Your task to perform on an android device: add a contact Image 0: 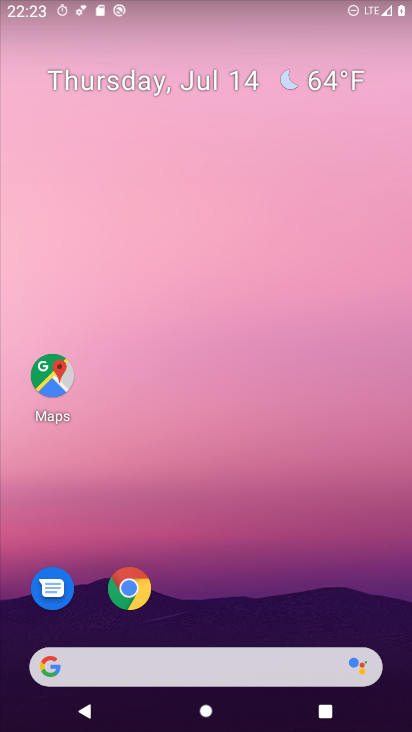
Step 0: drag from (323, 585) to (332, 155)
Your task to perform on an android device: add a contact Image 1: 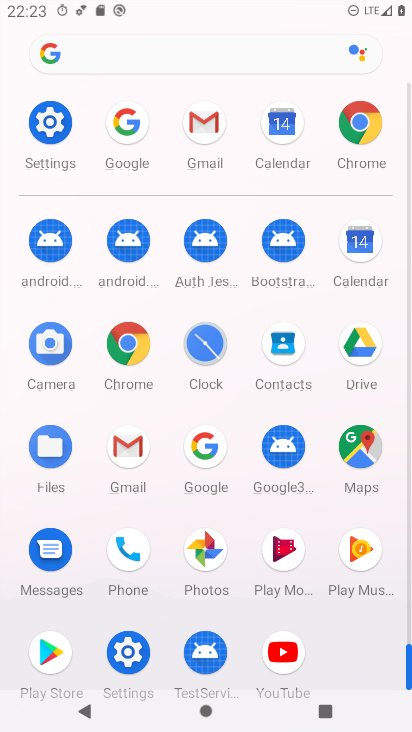
Step 1: click (286, 348)
Your task to perform on an android device: add a contact Image 2: 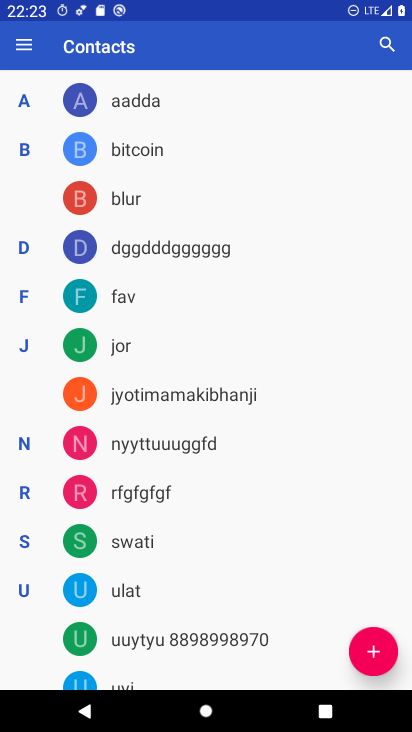
Step 2: click (384, 659)
Your task to perform on an android device: add a contact Image 3: 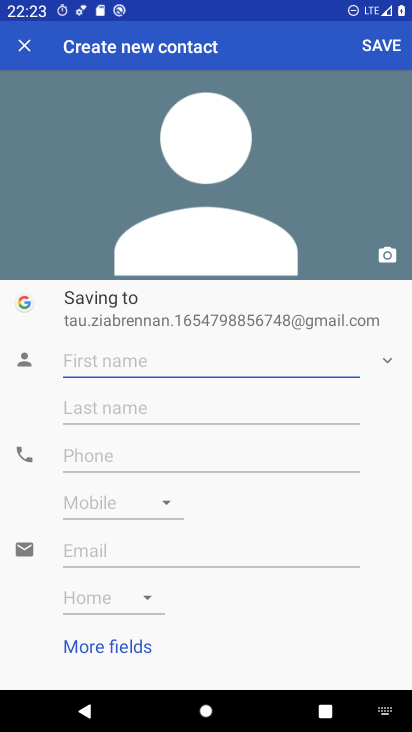
Step 3: type "lolol"
Your task to perform on an android device: add a contact Image 4: 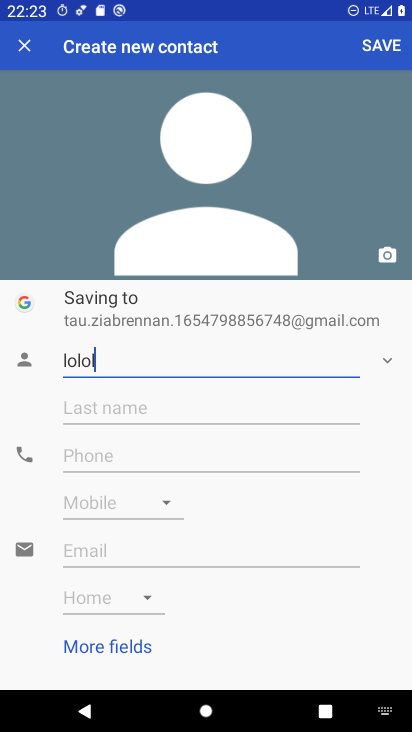
Step 4: click (276, 443)
Your task to perform on an android device: add a contact Image 5: 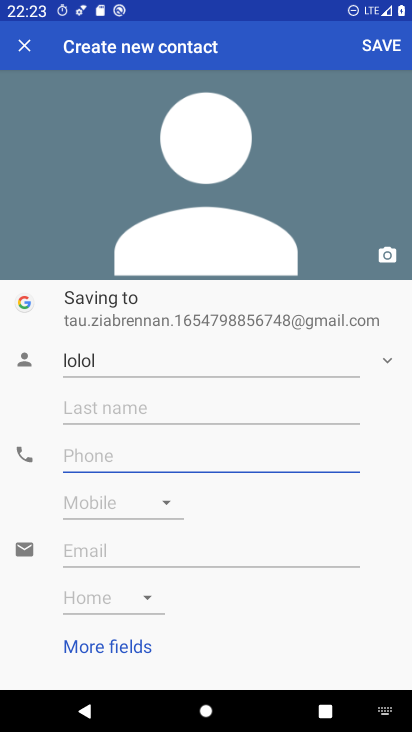
Step 5: type "1234567890"
Your task to perform on an android device: add a contact Image 6: 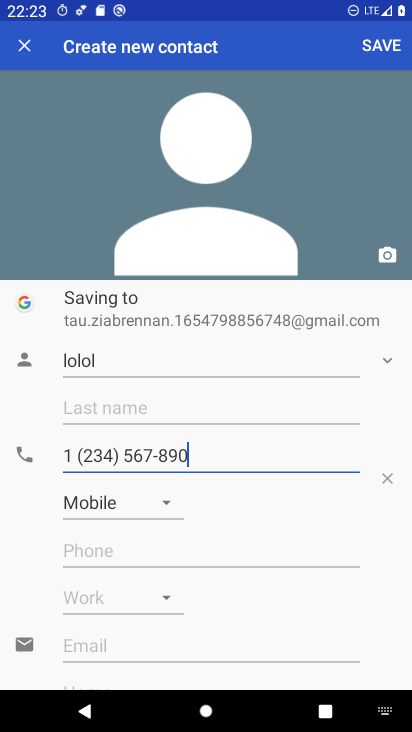
Step 6: click (399, 48)
Your task to perform on an android device: add a contact Image 7: 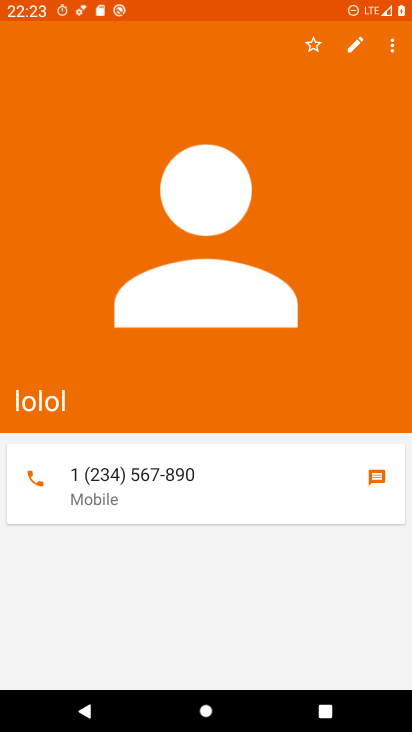
Step 7: task complete